Your task to perform on an android device: turn off javascript in the chrome app Image 0: 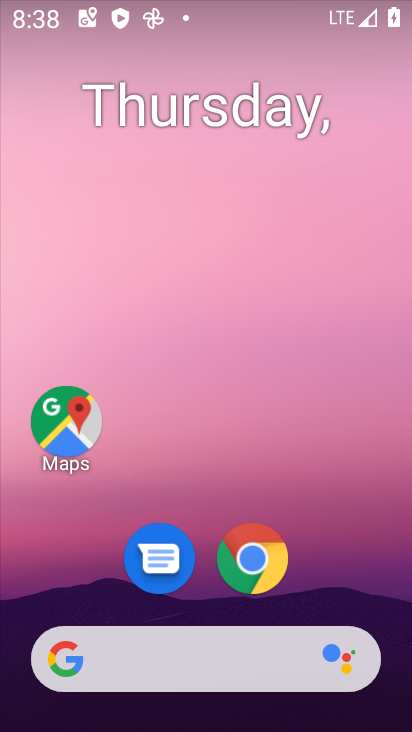
Step 0: click (250, 561)
Your task to perform on an android device: turn off javascript in the chrome app Image 1: 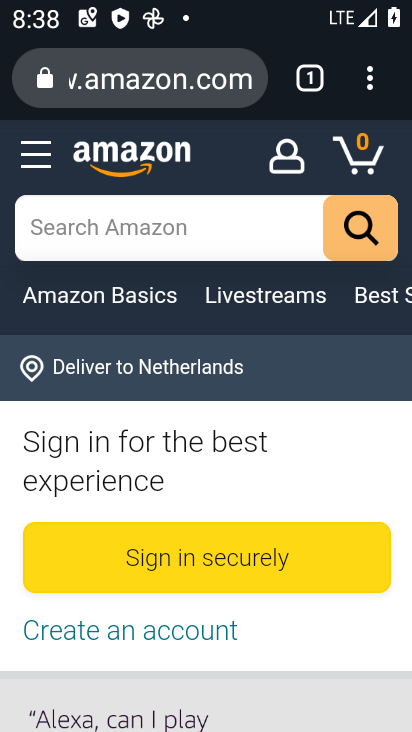
Step 1: click (372, 84)
Your task to perform on an android device: turn off javascript in the chrome app Image 2: 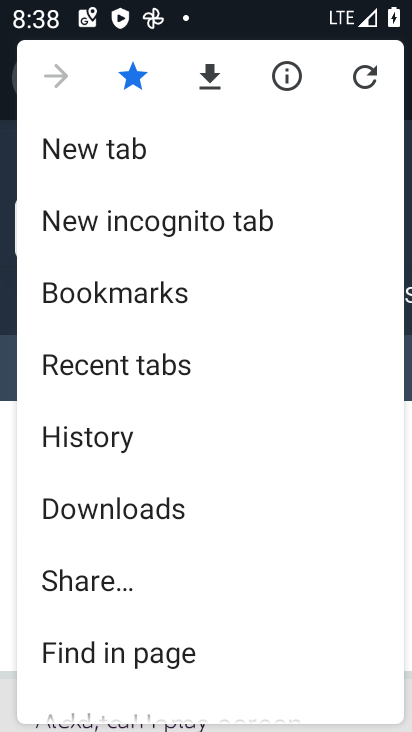
Step 2: drag from (175, 550) to (219, 264)
Your task to perform on an android device: turn off javascript in the chrome app Image 3: 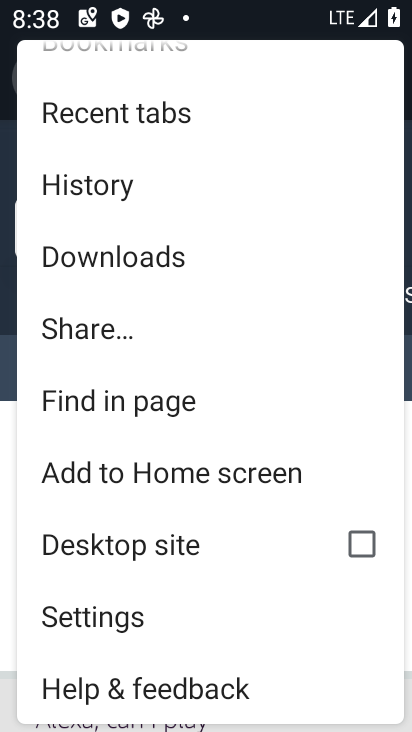
Step 3: click (93, 622)
Your task to perform on an android device: turn off javascript in the chrome app Image 4: 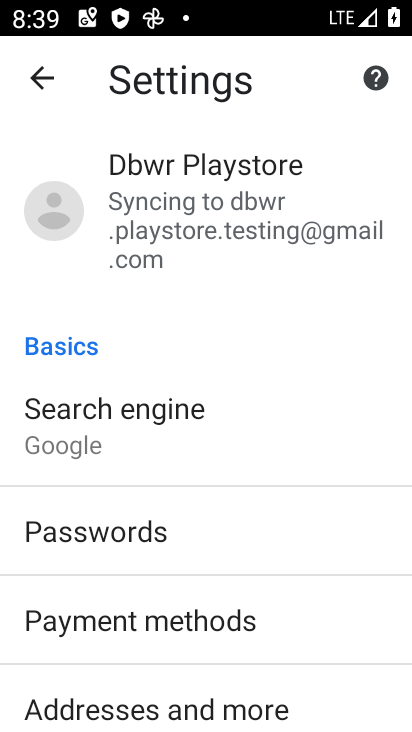
Step 4: drag from (161, 589) to (225, 242)
Your task to perform on an android device: turn off javascript in the chrome app Image 5: 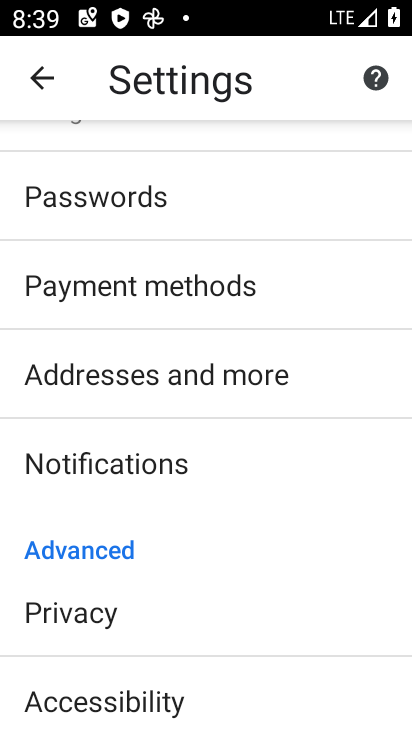
Step 5: drag from (93, 598) to (186, 214)
Your task to perform on an android device: turn off javascript in the chrome app Image 6: 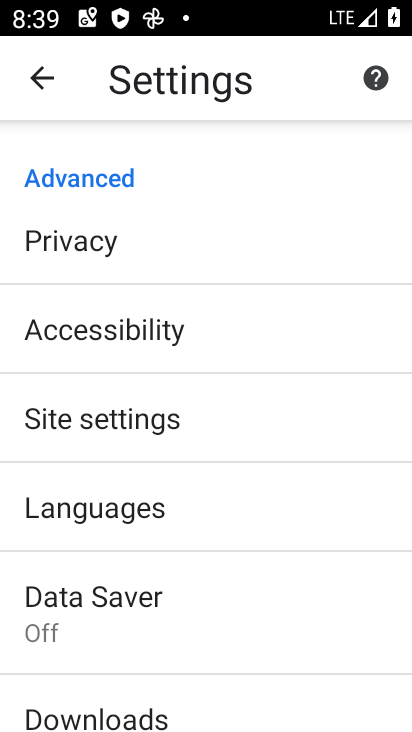
Step 6: click (92, 423)
Your task to perform on an android device: turn off javascript in the chrome app Image 7: 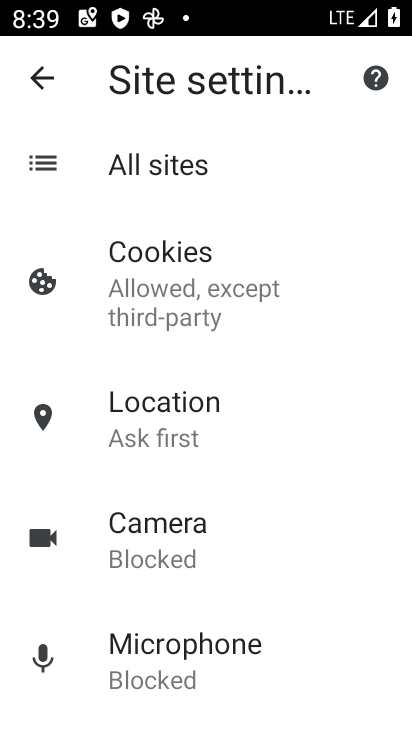
Step 7: drag from (219, 655) to (250, 139)
Your task to perform on an android device: turn off javascript in the chrome app Image 8: 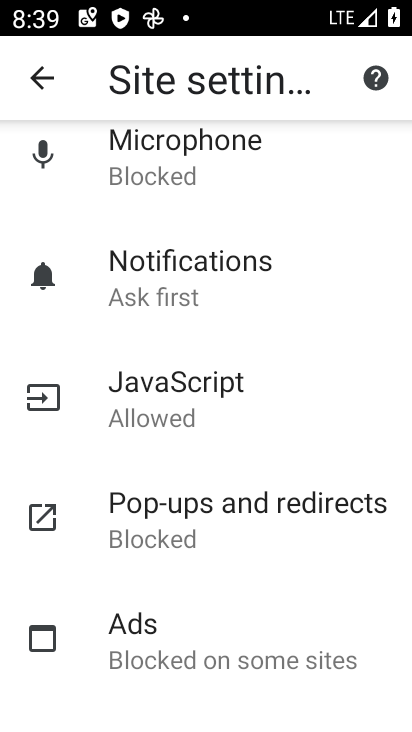
Step 8: click (206, 384)
Your task to perform on an android device: turn off javascript in the chrome app Image 9: 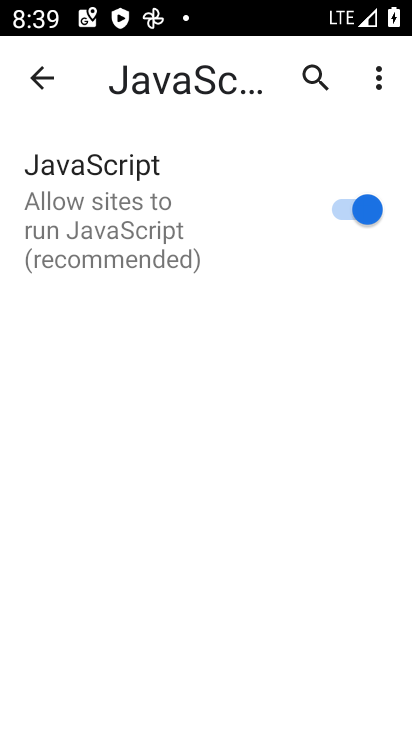
Step 9: click (346, 204)
Your task to perform on an android device: turn off javascript in the chrome app Image 10: 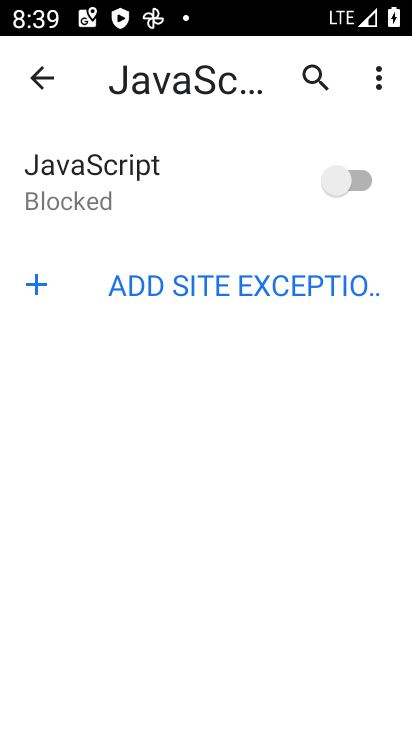
Step 10: task complete